Your task to perform on an android device: Open my contact list Image 0: 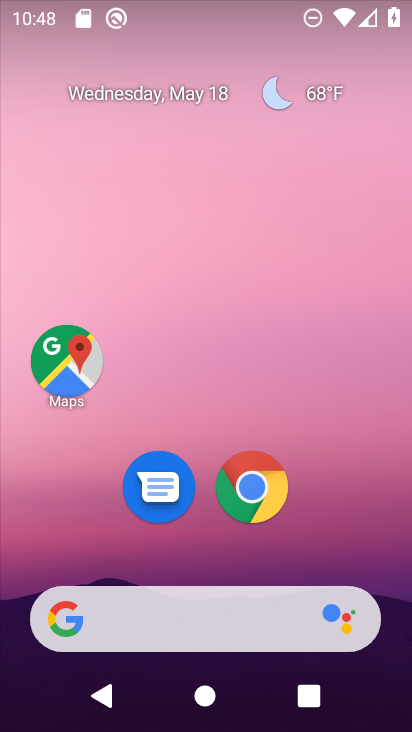
Step 0: drag from (330, 483) to (309, 151)
Your task to perform on an android device: Open my contact list Image 1: 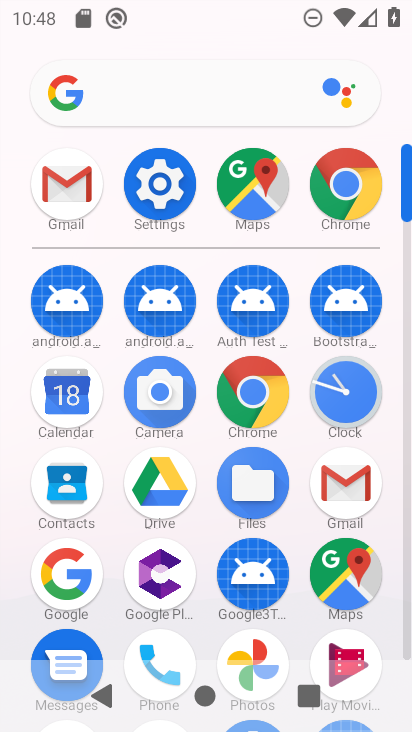
Step 1: click (61, 502)
Your task to perform on an android device: Open my contact list Image 2: 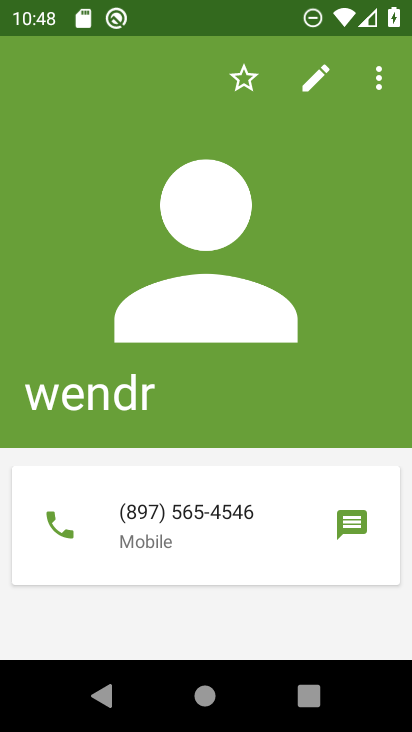
Step 2: task complete